Your task to perform on an android device: Go to settings Image 0: 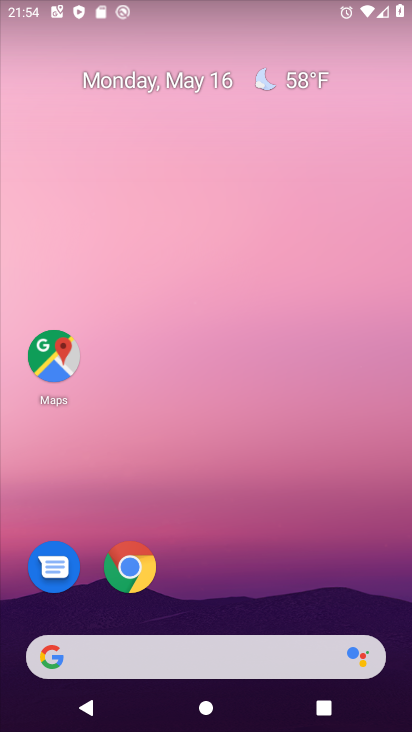
Step 0: drag from (294, 587) to (317, 306)
Your task to perform on an android device: Go to settings Image 1: 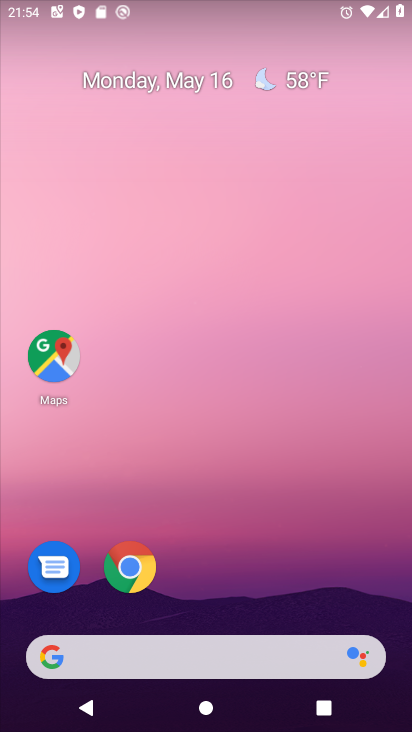
Step 1: drag from (297, 600) to (344, 105)
Your task to perform on an android device: Go to settings Image 2: 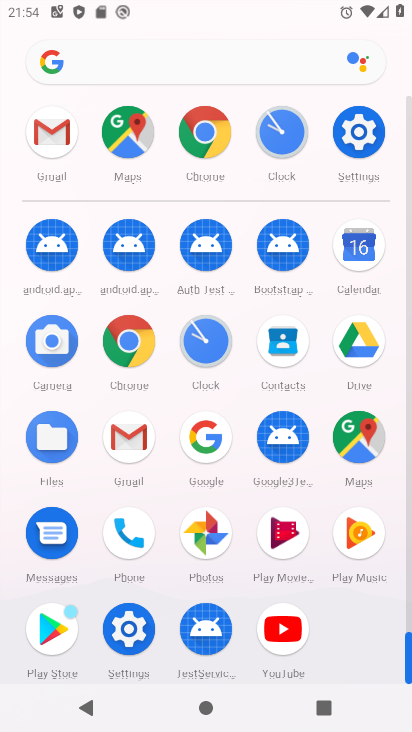
Step 2: click (357, 121)
Your task to perform on an android device: Go to settings Image 3: 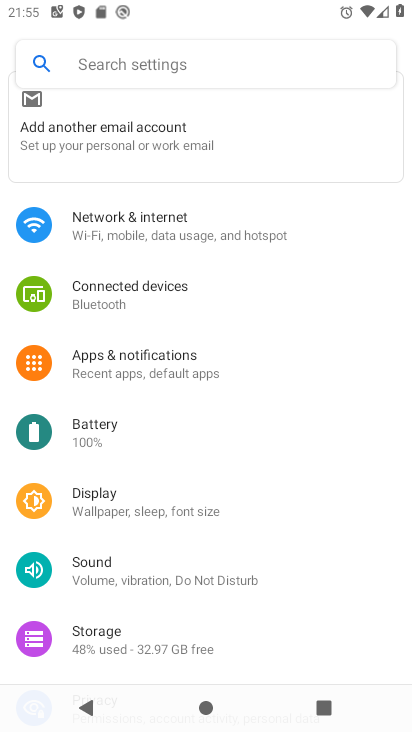
Step 3: task complete